Your task to perform on an android device: turn off priority inbox in the gmail app Image 0: 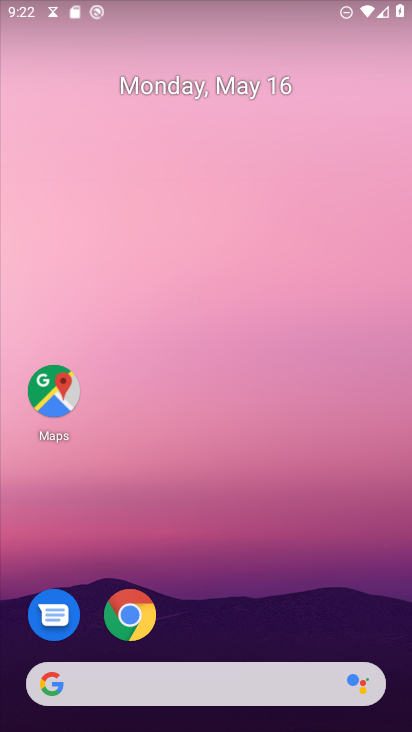
Step 0: drag from (33, 529) to (296, 1)
Your task to perform on an android device: turn off priority inbox in the gmail app Image 1: 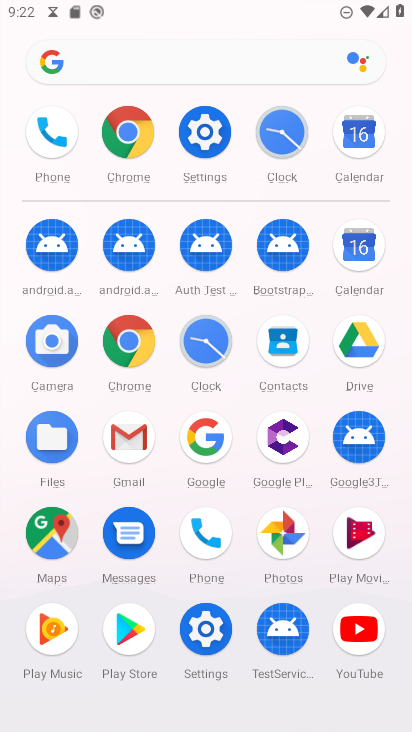
Step 1: click (124, 436)
Your task to perform on an android device: turn off priority inbox in the gmail app Image 2: 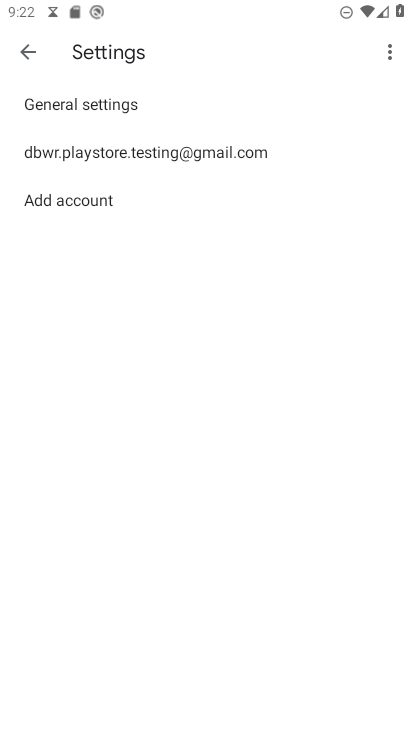
Step 2: click (156, 150)
Your task to perform on an android device: turn off priority inbox in the gmail app Image 3: 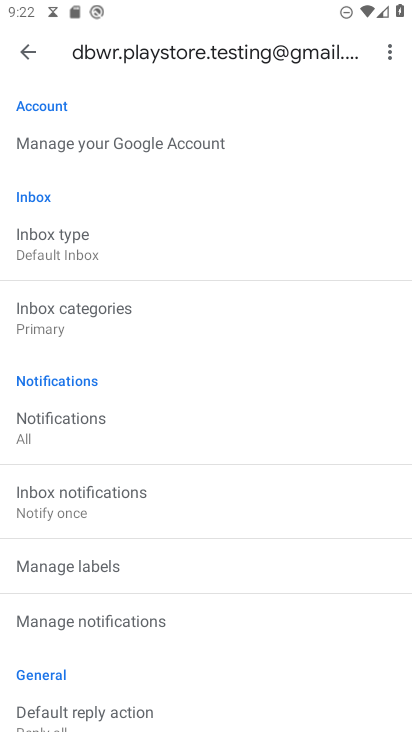
Step 3: drag from (46, 680) to (176, 243)
Your task to perform on an android device: turn off priority inbox in the gmail app Image 4: 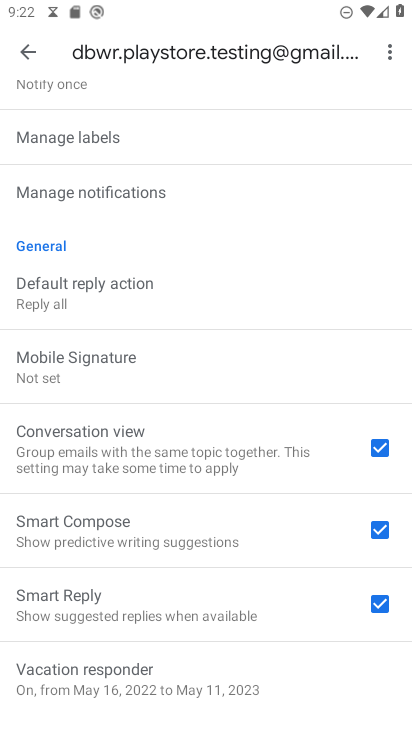
Step 4: drag from (107, 674) to (198, 250)
Your task to perform on an android device: turn off priority inbox in the gmail app Image 5: 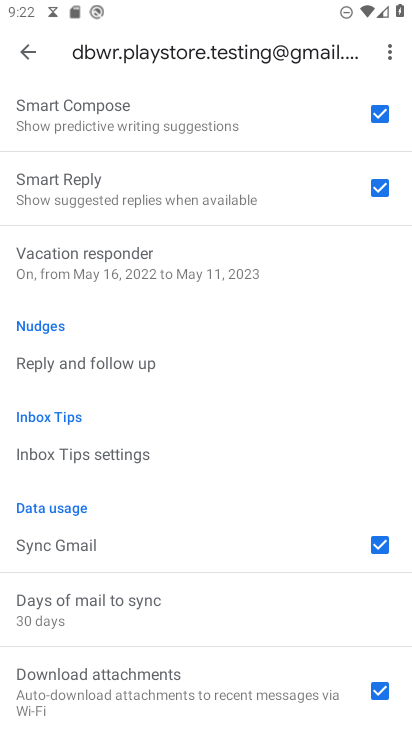
Step 5: drag from (69, 155) to (112, 515)
Your task to perform on an android device: turn off priority inbox in the gmail app Image 6: 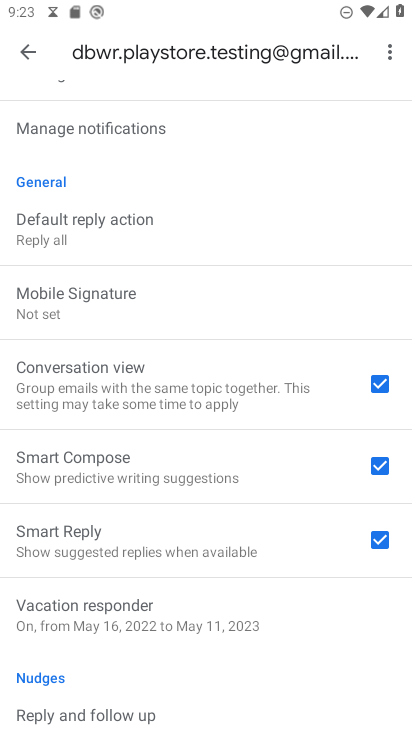
Step 6: drag from (128, 64) to (161, 523)
Your task to perform on an android device: turn off priority inbox in the gmail app Image 7: 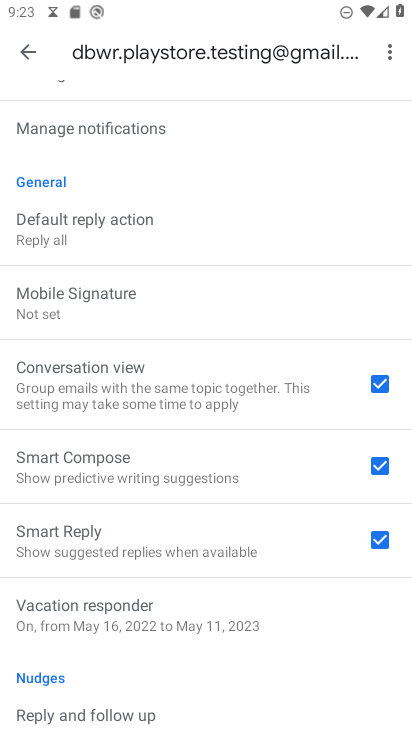
Step 7: drag from (193, 220) to (211, 666)
Your task to perform on an android device: turn off priority inbox in the gmail app Image 8: 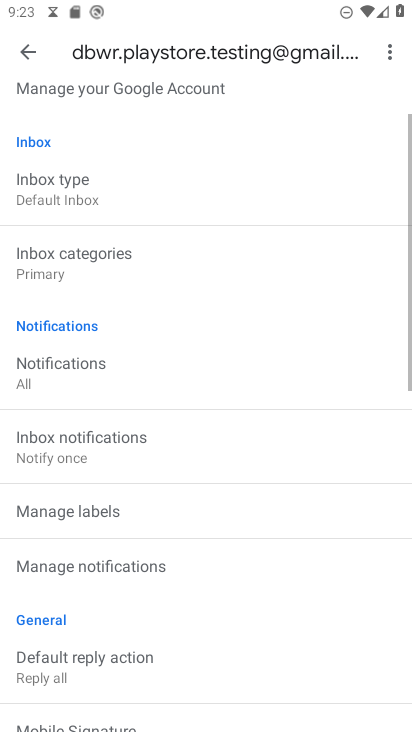
Step 8: drag from (119, 145) to (177, 588)
Your task to perform on an android device: turn off priority inbox in the gmail app Image 9: 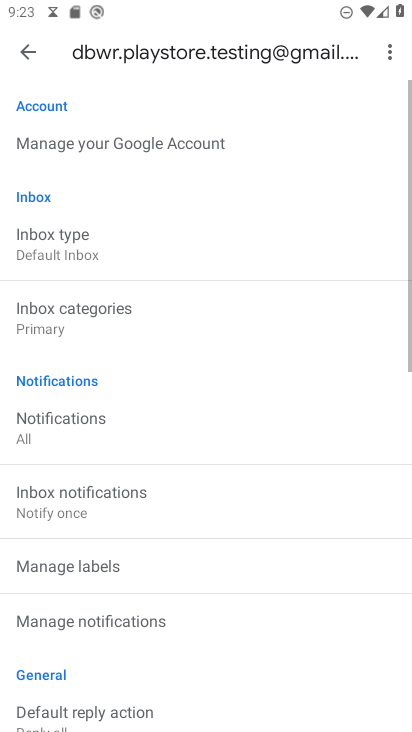
Step 9: click (74, 247)
Your task to perform on an android device: turn off priority inbox in the gmail app Image 10: 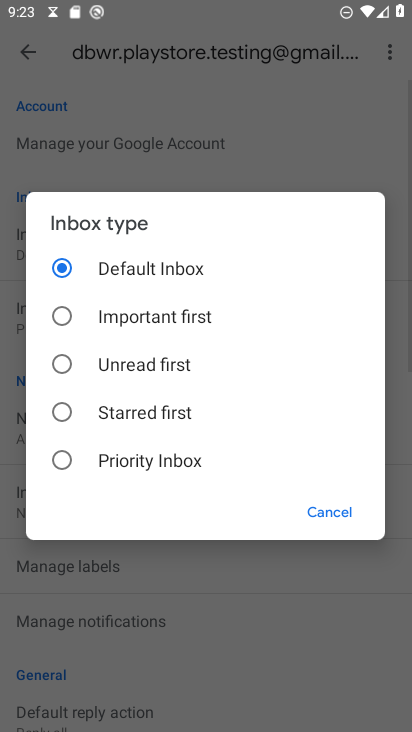
Step 10: task complete